Your task to perform on an android device: Go to internet settings Image 0: 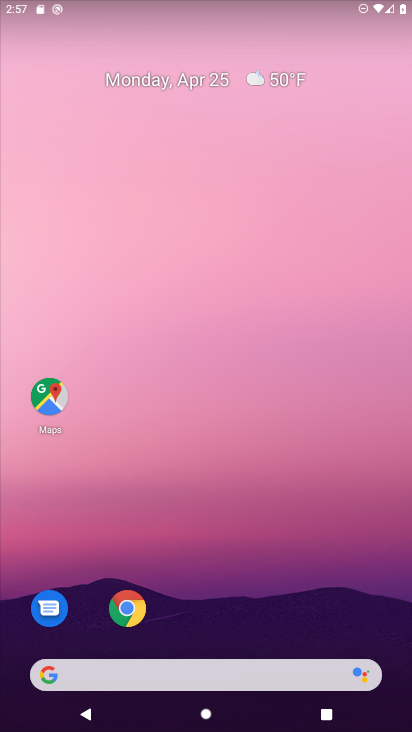
Step 0: drag from (212, 637) to (210, 188)
Your task to perform on an android device: Go to internet settings Image 1: 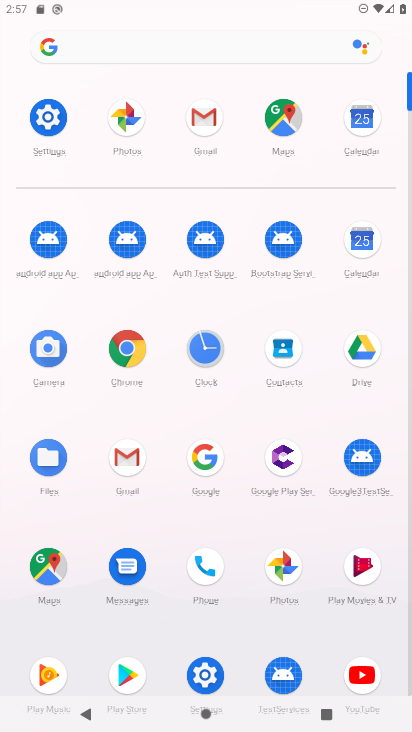
Step 1: click (48, 103)
Your task to perform on an android device: Go to internet settings Image 2: 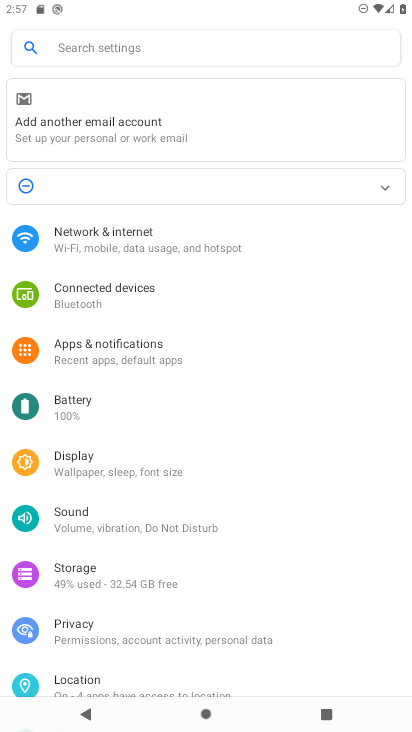
Step 2: click (128, 249)
Your task to perform on an android device: Go to internet settings Image 3: 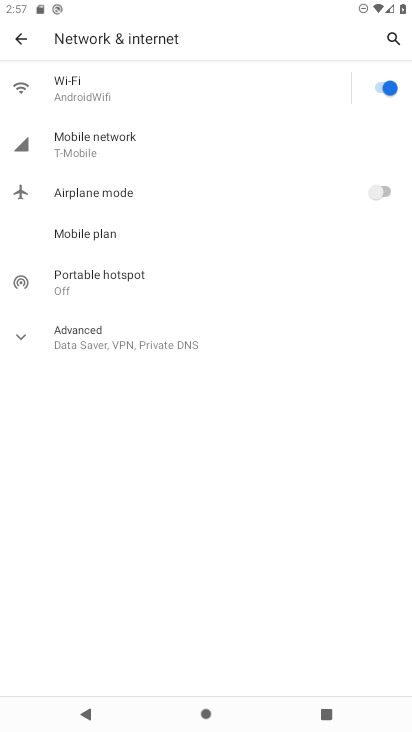
Step 3: click (106, 151)
Your task to perform on an android device: Go to internet settings Image 4: 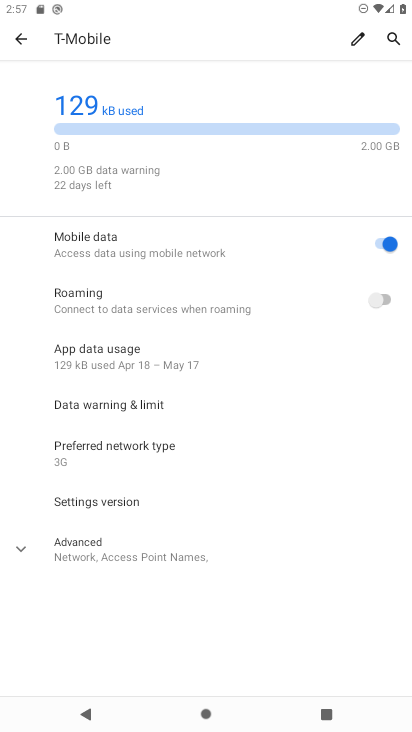
Step 4: task complete